Your task to perform on an android device: turn off location history Image 0: 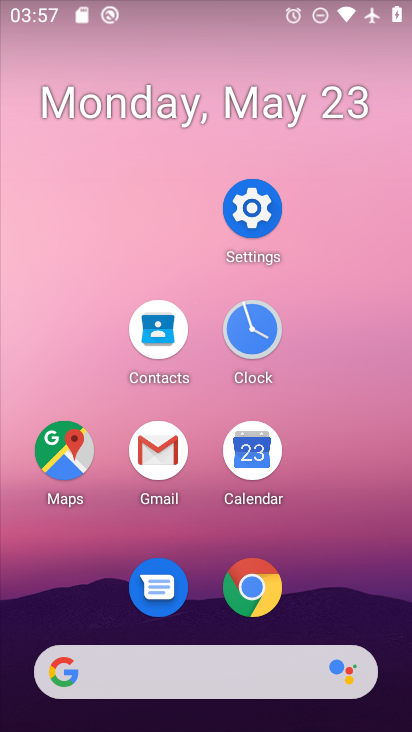
Step 0: click (269, 227)
Your task to perform on an android device: turn off location history Image 1: 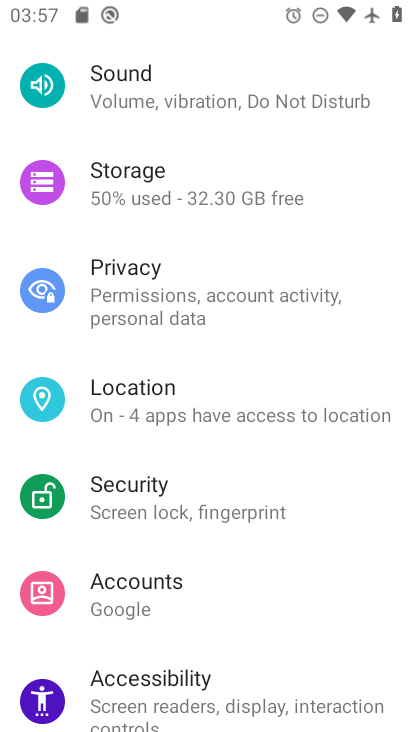
Step 1: click (212, 395)
Your task to perform on an android device: turn off location history Image 2: 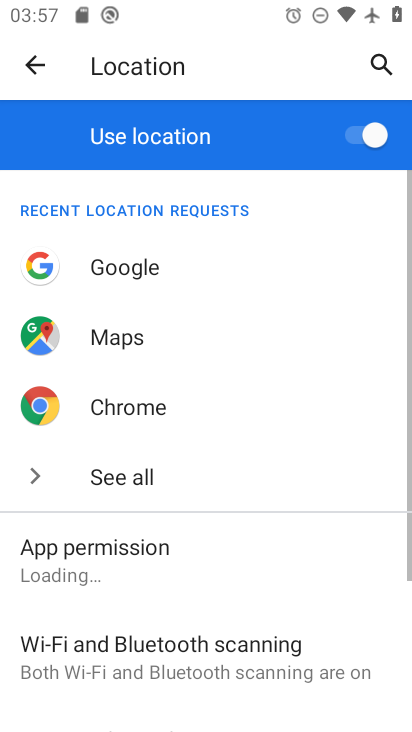
Step 2: click (329, 126)
Your task to perform on an android device: turn off location history Image 3: 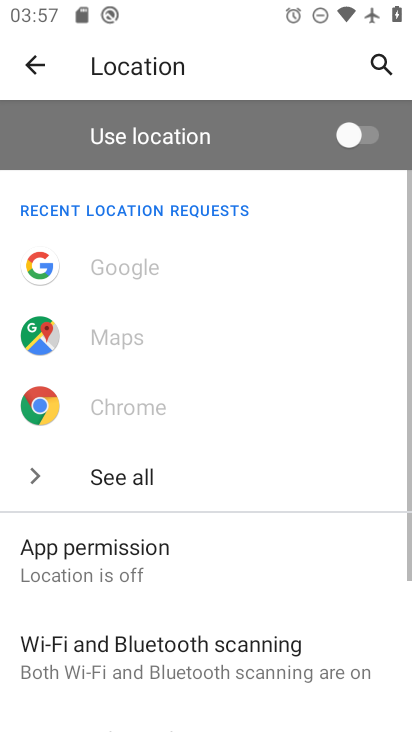
Step 3: task complete